Your task to perform on an android device: Toggle the flashlight Image 0: 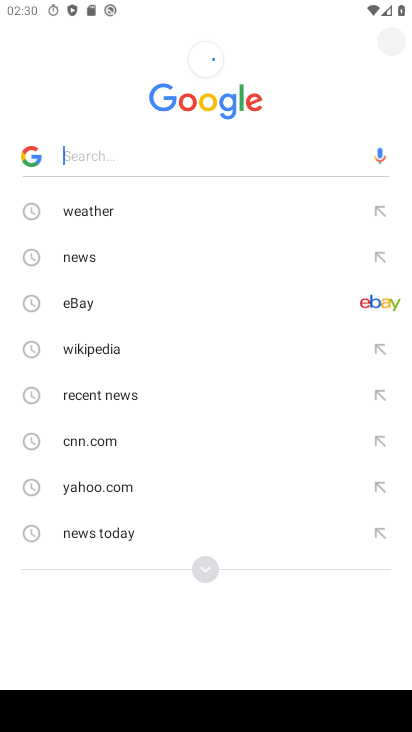
Step 0: press home button
Your task to perform on an android device: Toggle the flashlight Image 1: 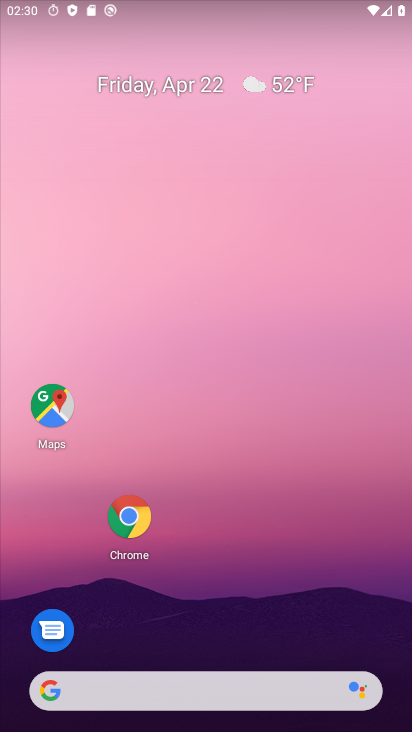
Step 1: drag from (358, 551) to (348, 276)
Your task to perform on an android device: Toggle the flashlight Image 2: 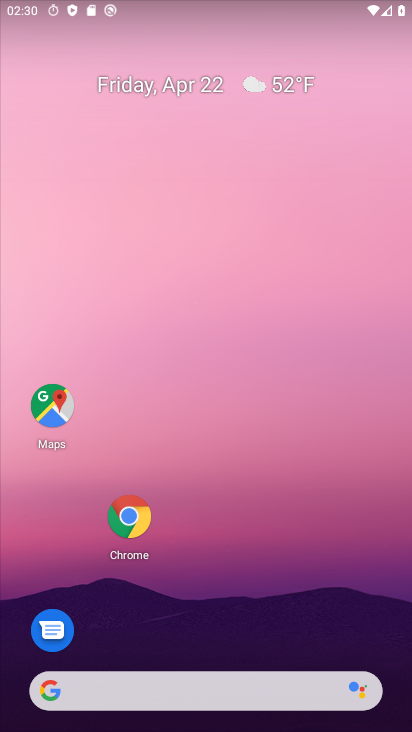
Step 2: drag from (375, 553) to (334, 216)
Your task to perform on an android device: Toggle the flashlight Image 3: 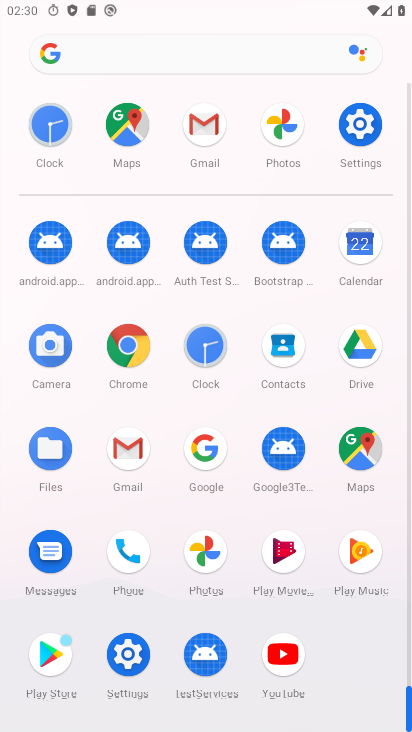
Step 3: click (367, 122)
Your task to perform on an android device: Toggle the flashlight Image 4: 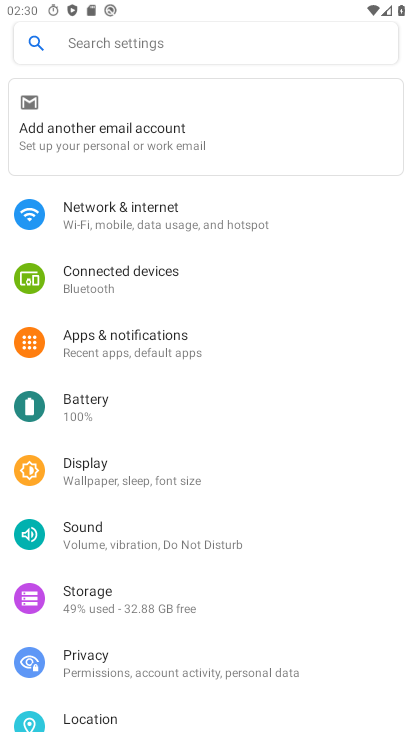
Step 4: click (76, 339)
Your task to perform on an android device: Toggle the flashlight Image 5: 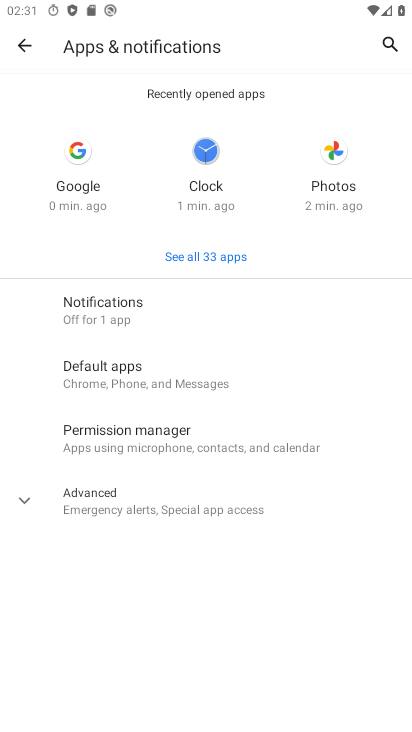
Step 5: task complete